Your task to perform on an android device: toggle location history Image 0: 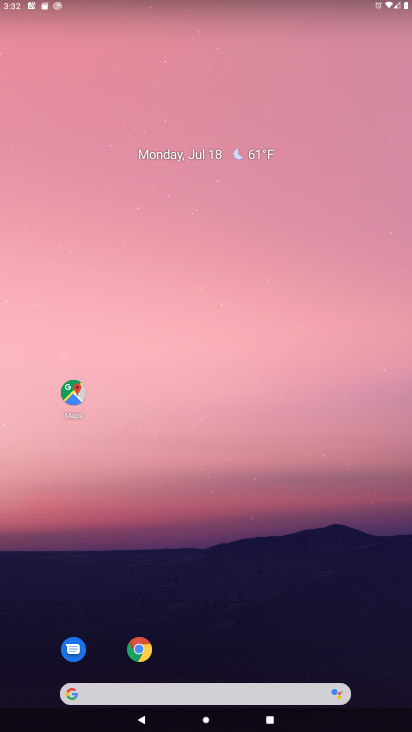
Step 0: drag from (227, 646) to (331, 31)
Your task to perform on an android device: toggle location history Image 1: 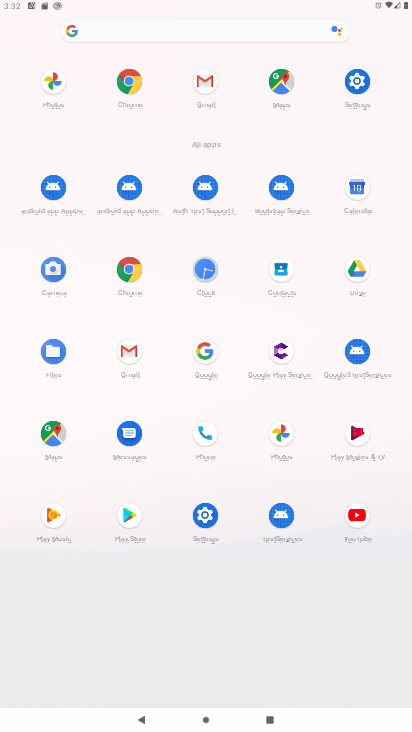
Step 1: click (358, 79)
Your task to perform on an android device: toggle location history Image 2: 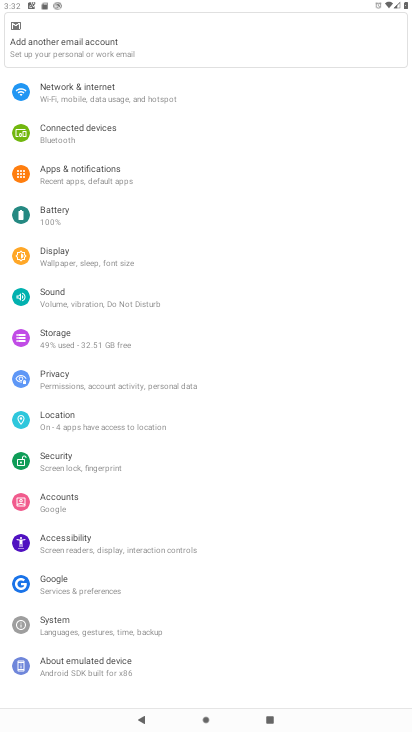
Step 2: click (62, 419)
Your task to perform on an android device: toggle location history Image 3: 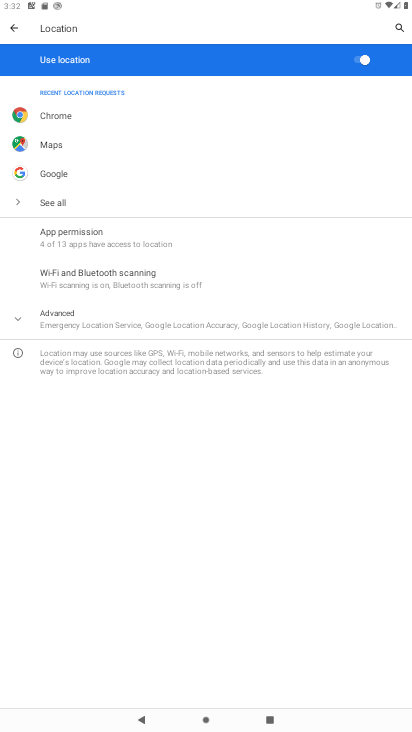
Step 3: click (153, 321)
Your task to perform on an android device: toggle location history Image 4: 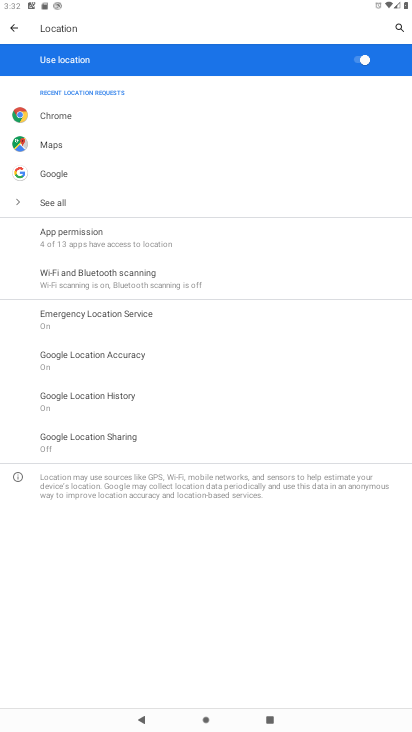
Step 4: click (129, 391)
Your task to perform on an android device: toggle location history Image 5: 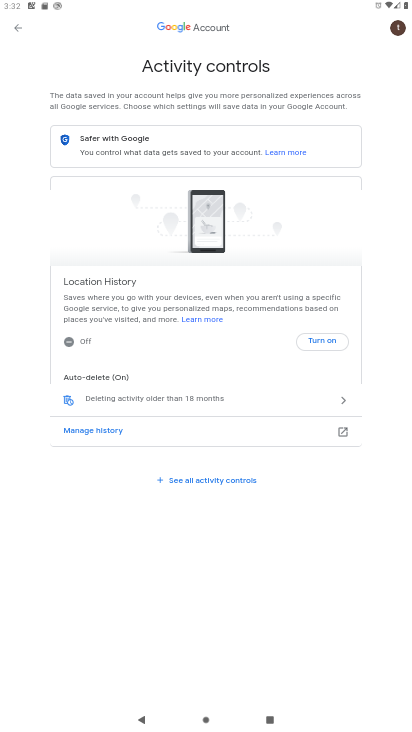
Step 5: click (325, 345)
Your task to perform on an android device: toggle location history Image 6: 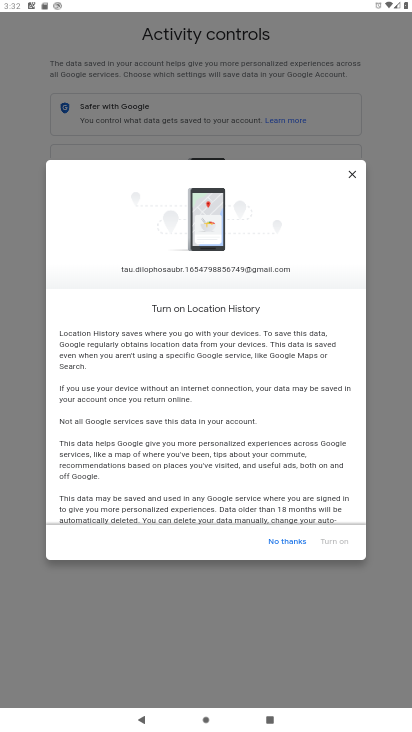
Step 6: drag from (279, 487) to (275, 59)
Your task to perform on an android device: toggle location history Image 7: 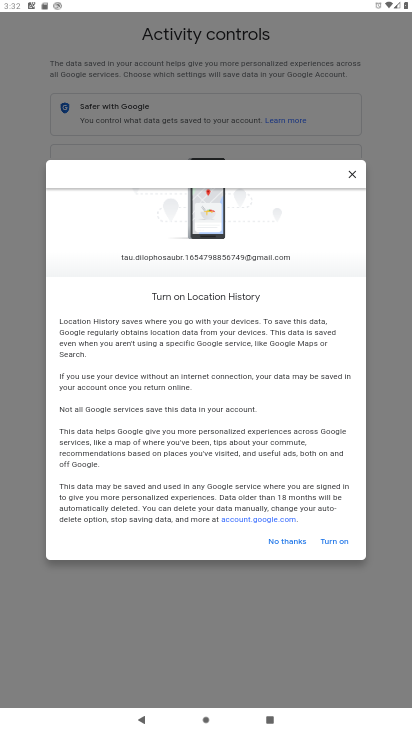
Step 7: click (328, 539)
Your task to perform on an android device: toggle location history Image 8: 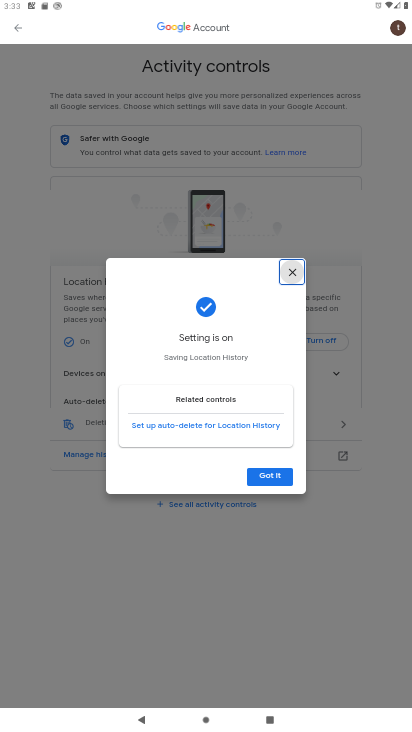
Step 8: task complete